Your task to perform on an android device: Open the phone app and click the voicemail tab. Image 0: 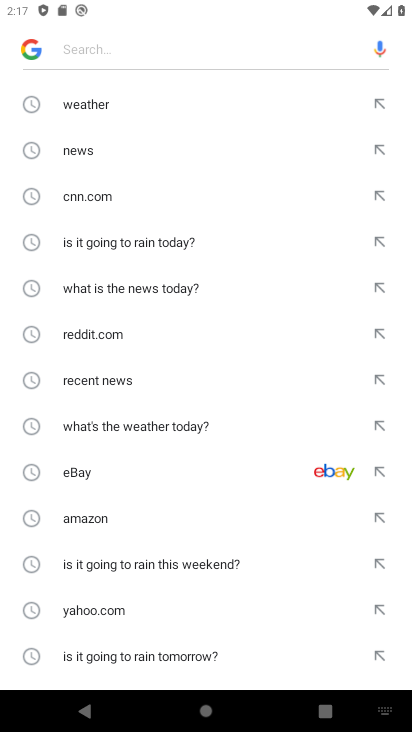
Step 0: press home button
Your task to perform on an android device: Open the phone app and click the voicemail tab. Image 1: 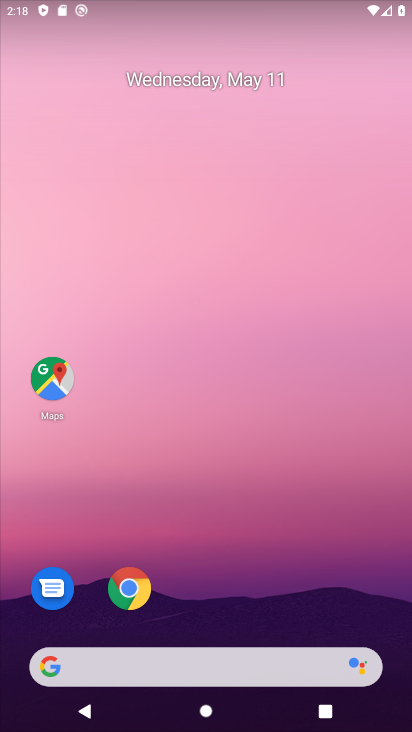
Step 1: drag from (228, 586) to (154, 102)
Your task to perform on an android device: Open the phone app and click the voicemail tab. Image 2: 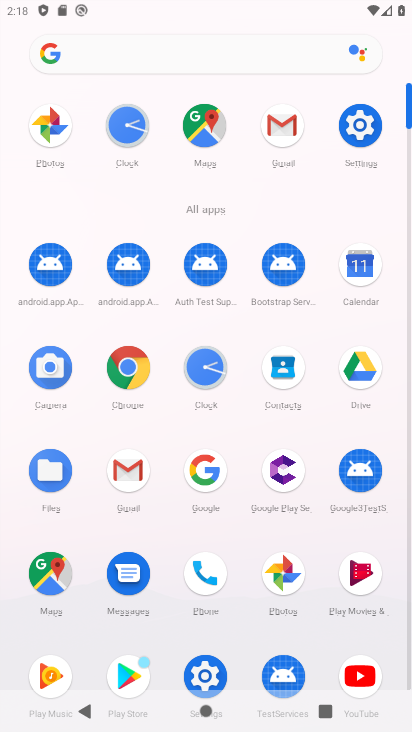
Step 2: click (194, 569)
Your task to perform on an android device: Open the phone app and click the voicemail tab. Image 3: 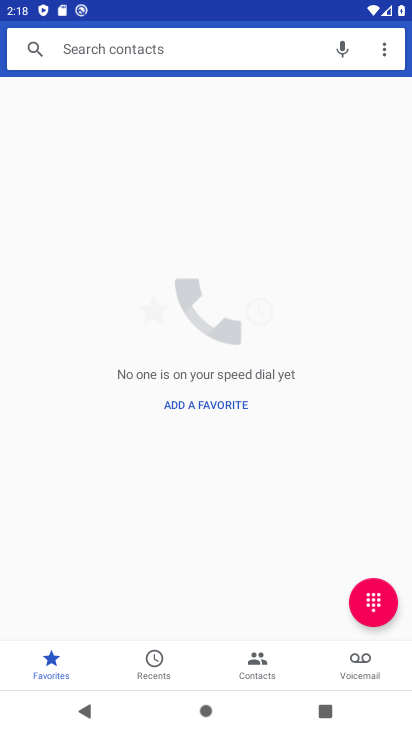
Step 3: click (361, 670)
Your task to perform on an android device: Open the phone app and click the voicemail tab. Image 4: 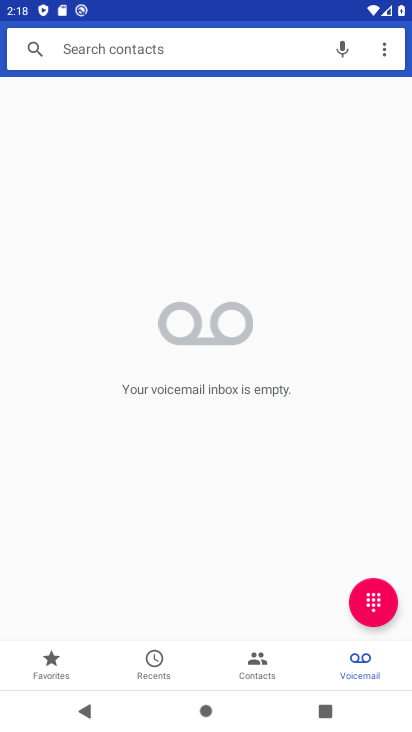
Step 4: click (357, 663)
Your task to perform on an android device: Open the phone app and click the voicemail tab. Image 5: 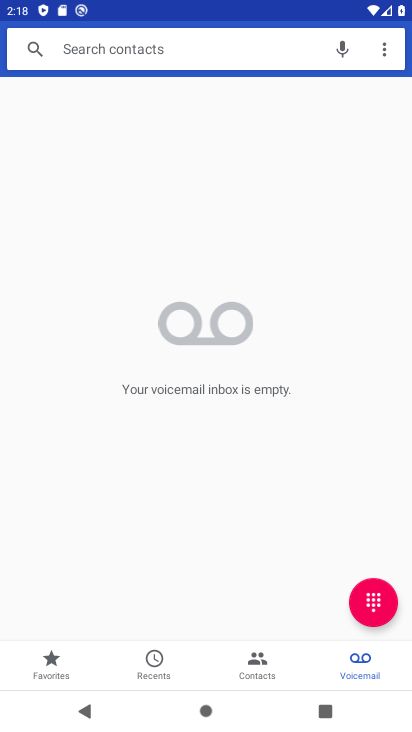
Step 5: task complete